Your task to perform on an android device: turn on bluetooth scan Image 0: 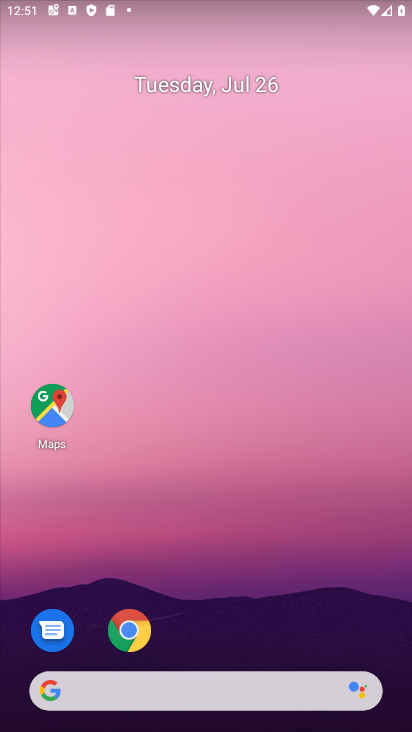
Step 0: drag from (367, 645) to (373, 205)
Your task to perform on an android device: turn on bluetooth scan Image 1: 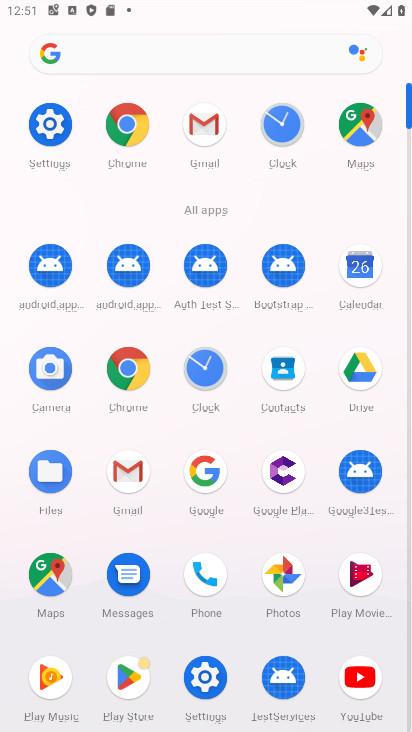
Step 1: click (204, 677)
Your task to perform on an android device: turn on bluetooth scan Image 2: 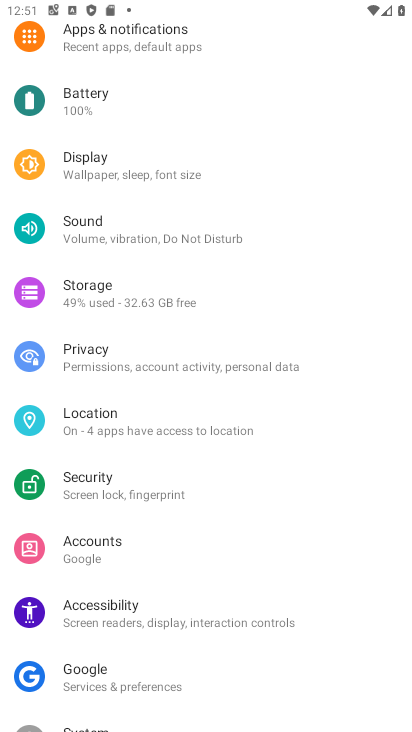
Step 2: click (113, 412)
Your task to perform on an android device: turn on bluetooth scan Image 3: 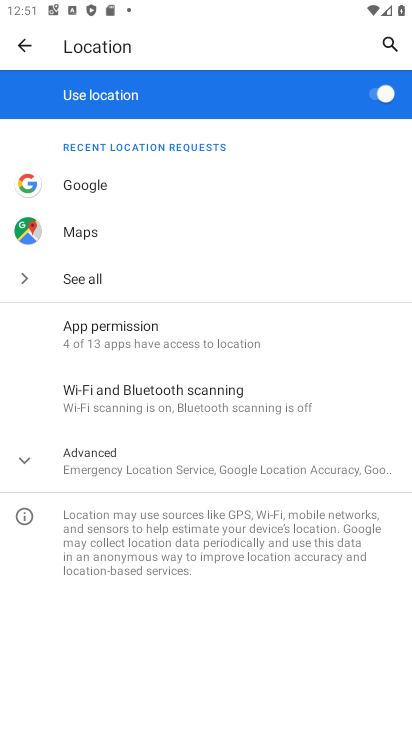
Step 3: click (203, 400)
Your task to perform on an android device: turn on bluetooth scan Image 4: 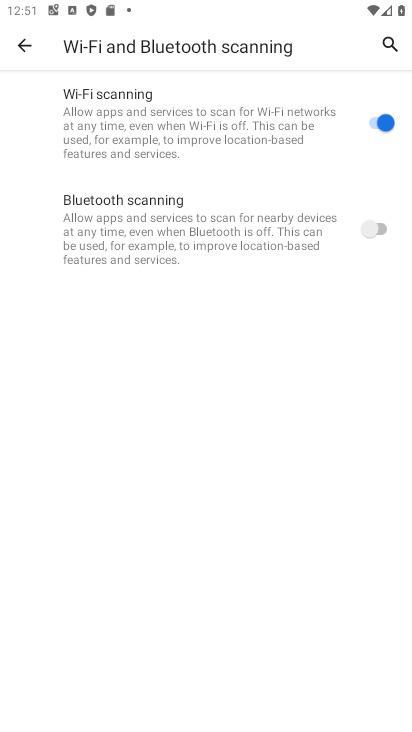
Step 4: click (384, 226)
Your task to perform on an android device: turn on bluetooth scan Image 5: 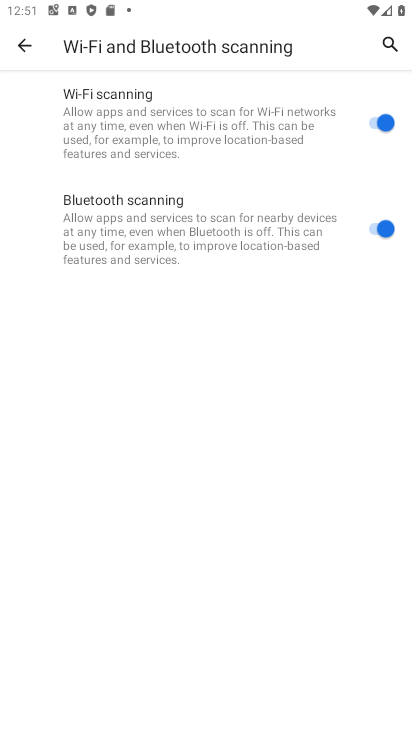
Step 5: task complete